Your task to perform on an android device: visit the assistant section in the google photos Image 0: 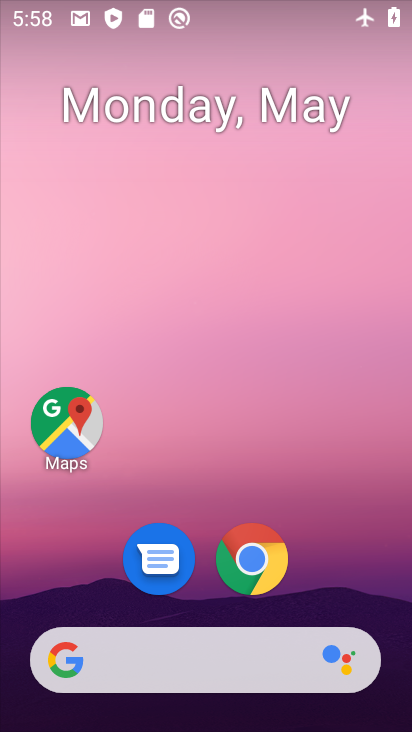
Step 0: drag from (251, 478) to (237, 16)
Your task to perform on an android device: visit the assistant section in the google photos Image 1: 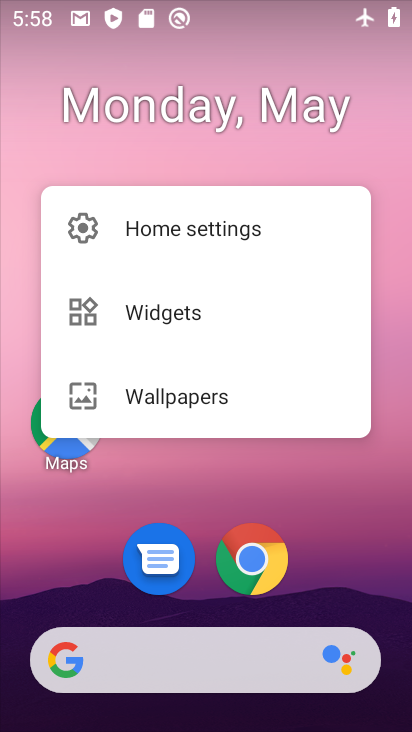
Step 1: click (322, 472)
Your task to perform on an android device: visit the assistant section in the google photos Image 2: 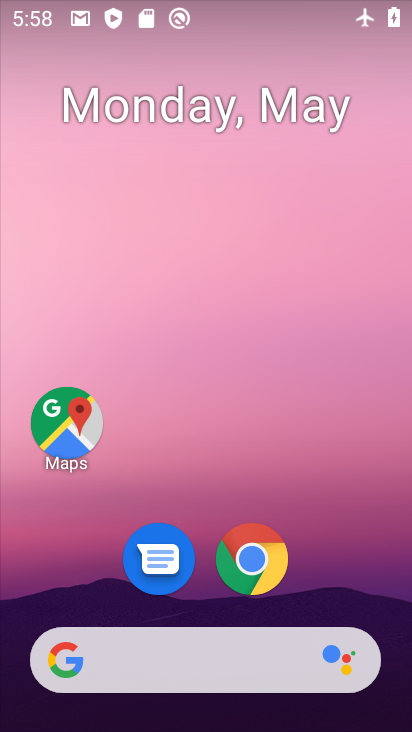
Step 2: drag from (338, 566) to (228, 61)
Your task to perform on an android device: visit the assistant section in the google photos Image 3: 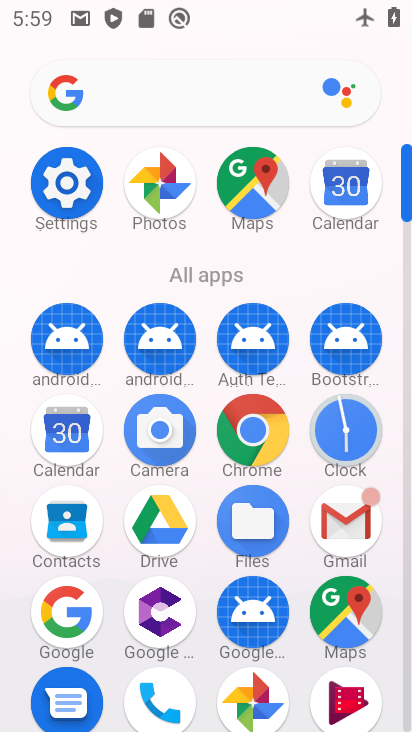
Step 3: click (158, 182)
Your task to perform on an android device: visit the assistant section in the google photos Image 4: 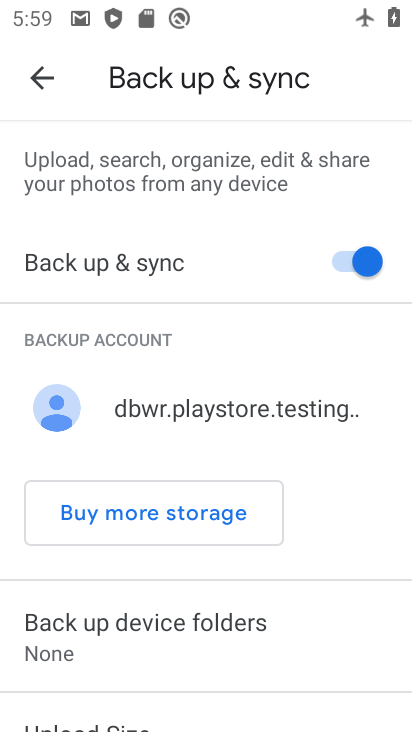
Step 4: click (46, 76)
Your task to perform on an android device: visit the assistant section in the google photos Image 5: 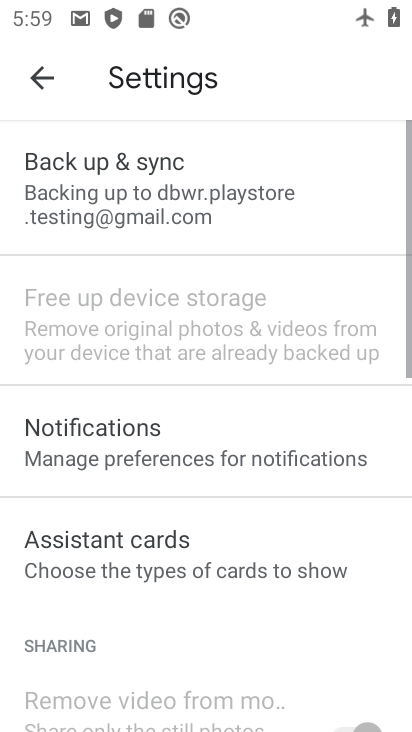
Step 5: click (46, 76)
Your task to perform on an android device: visit the assistant section in the google photos Image 6: 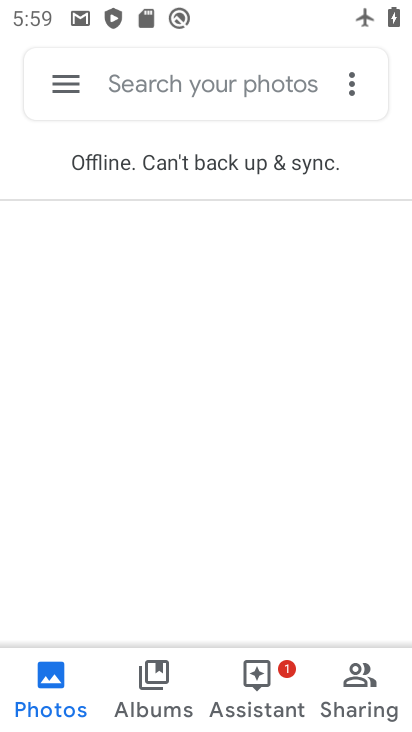
Step 6: click (250, 675)
Your task to perform on an android device: visit the assistant section in the google photos Image 7: 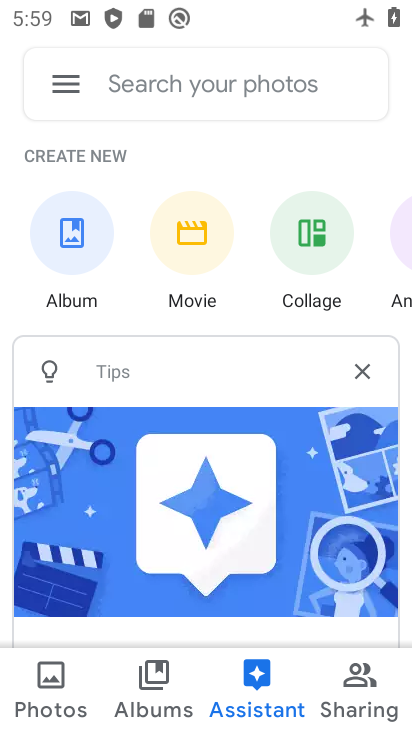
Step 7: task complete